Your task to perform on an android device: Open internet settings Image 0: 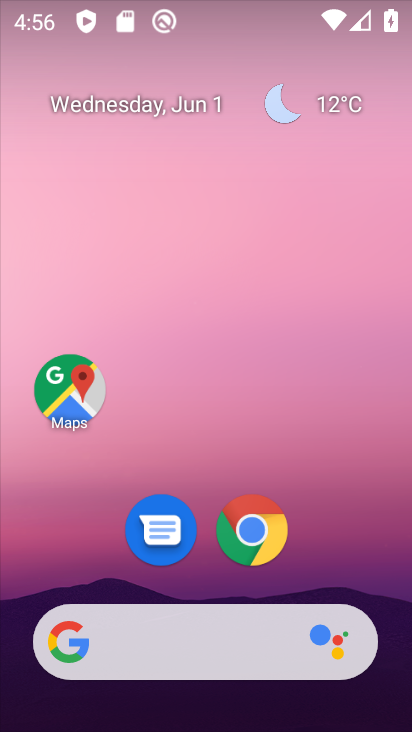
Step 0: drag from (208, 547) to (262, 56)
Your task to perform on an android device: Open internet settings Image 1: 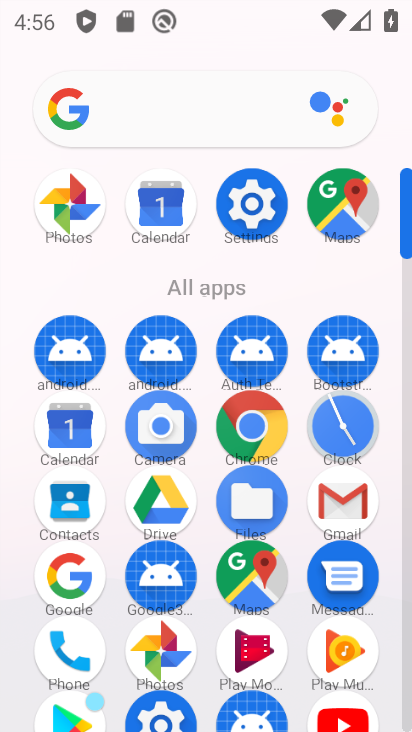
Step 1: click (251, 203)
Your task to perform on an android device: Open internet settings Image 2: 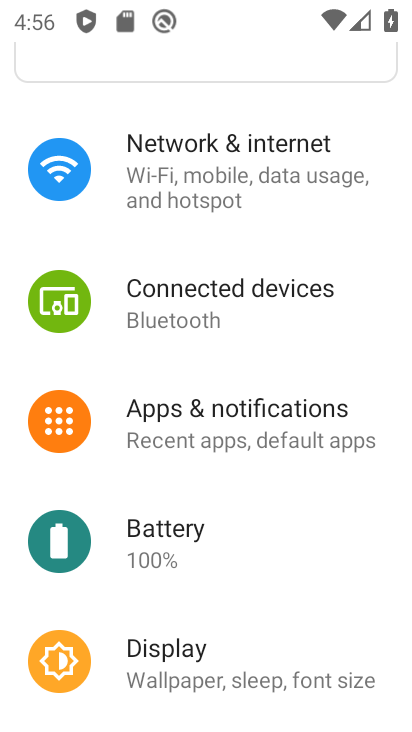
Step 2: click (183, 180)
Your task to perform on an android device: Open internet settings Image 3: 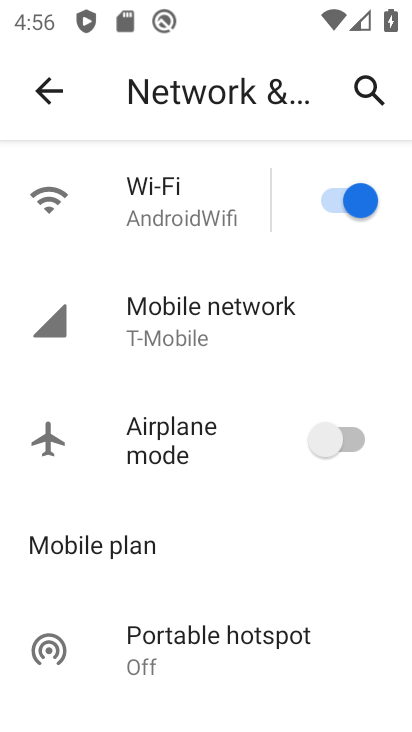
Step 3: task complete